Your task to perform on an android device: Search for vegetarian restaurants on Maps Image 0: 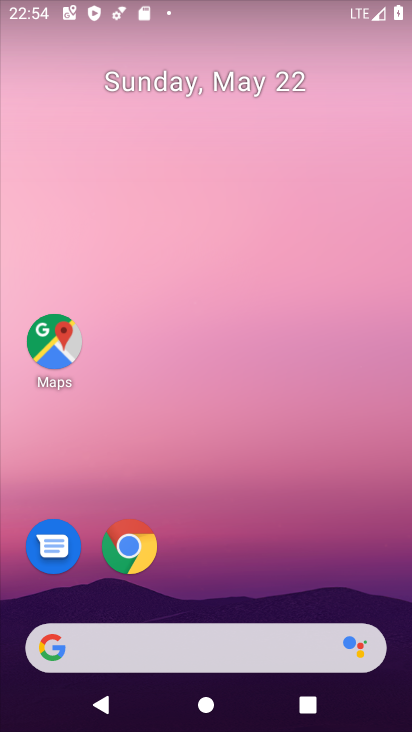
Step 0: drag from (217, 566) to (278, 122)
Your task to perform on an android device: Search for vegetarian restaurants on Maps Image 1: 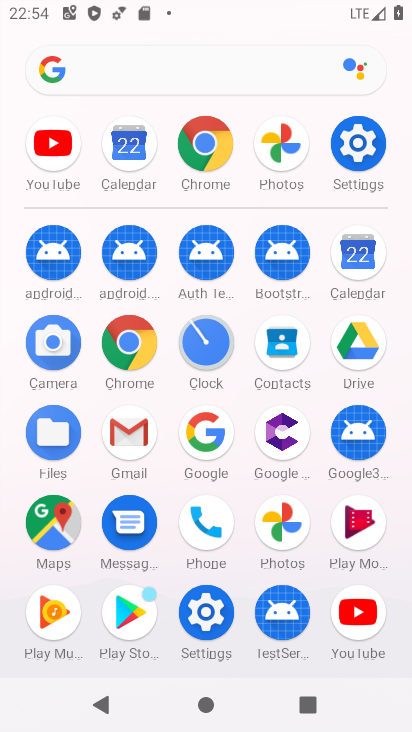
Step 1: click (55, 539)
Your task to perform on an android device: Search for vegetarian restaurants on Maps Image 2: 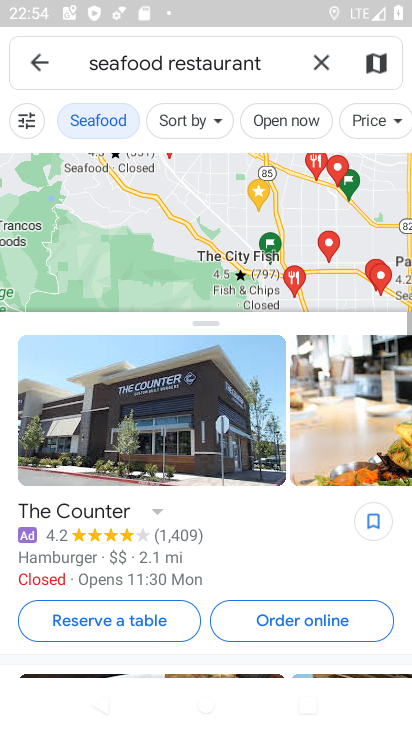
Step 2: click (320, 61)
Your task to perform on an android device: Search for vegetarian restaurants on Maps Image 3: 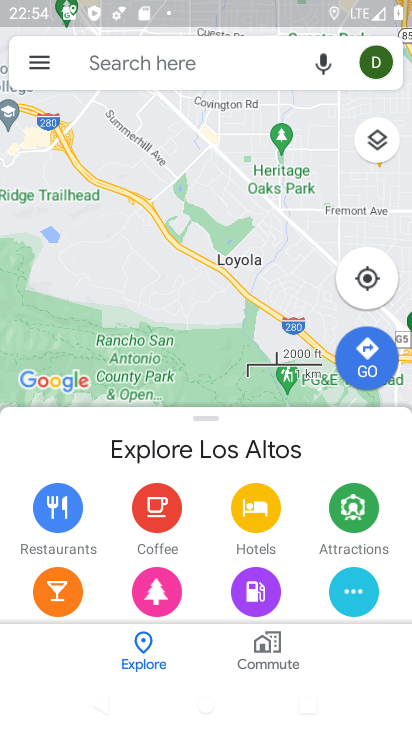
Step 3: click (111, 61)
Your task to perform on an android device: Search for vegetarian restaurants on Maps Image 4: 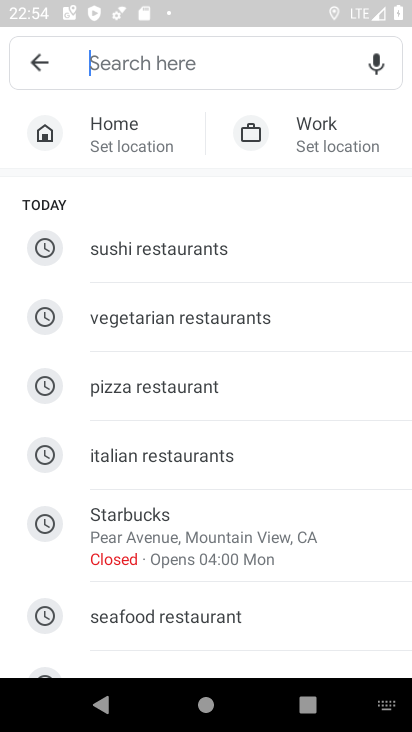
Step 4: click (119, 310)
Your task to perform on an android device: Search for vegetarian restaurants on Maps Image 5: 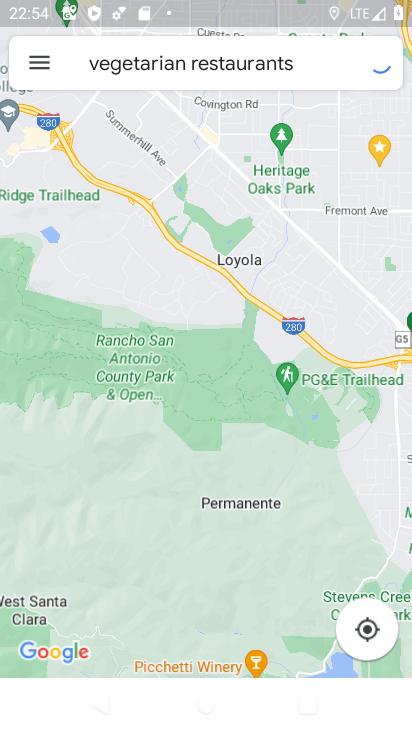
Step 5: drag from (183, 577) to (237, 197)
Your task to perform on an android device: Search for vegetarian restaurants on Maps Image 6: 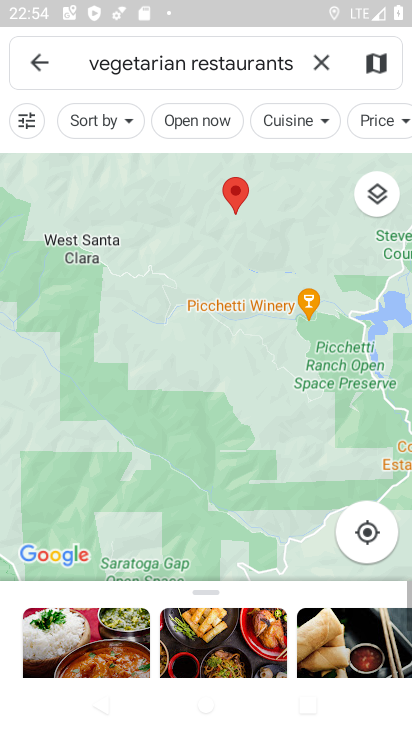
Step 6: drag from (206, 417) to (173, 134)
Your task to perform on an android device: Search for vegetarian restaurants on Maps Image 7: 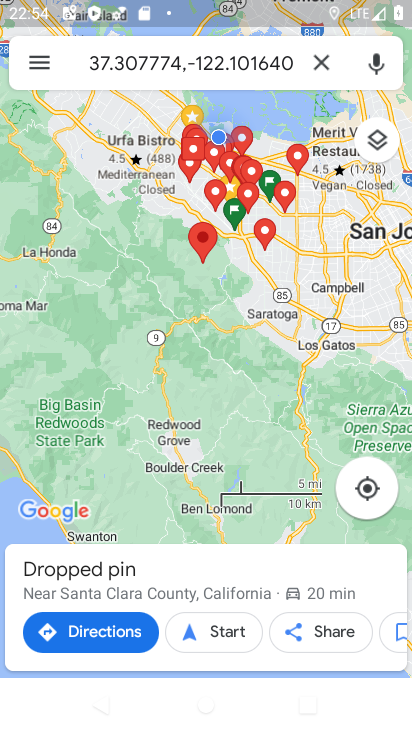
Step 7: click (318, 66)
Your task to perform on an android device: Search for vegetarian restaurants on Maps Image 8: 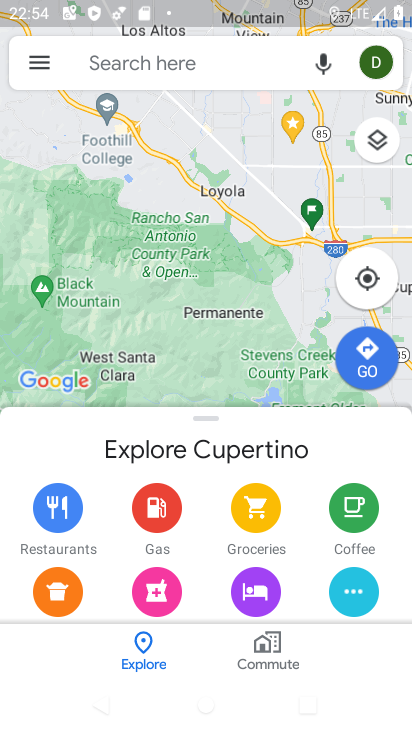
Step 8: click (115, 61)
Your task to perform on an android device: Search for vegetarian restaurants on Maps Image 9: 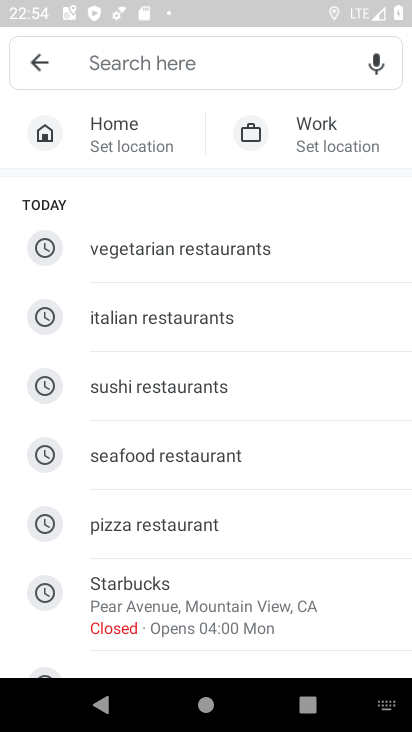
Step 9: click (144, 252)
Your task to perform on an android device: Search for vegetarian restaurants on Maps Image 10: 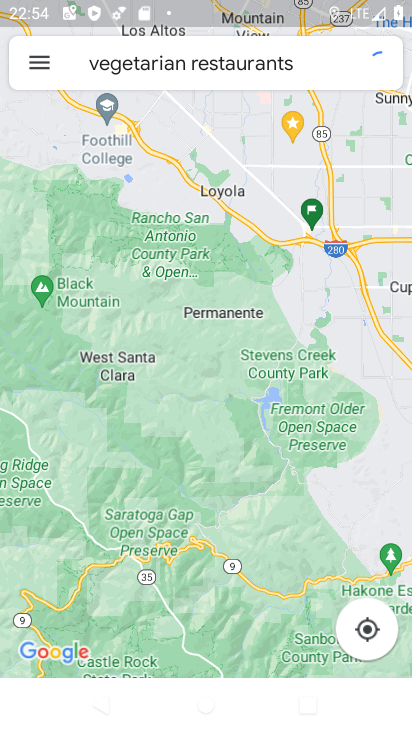
Step 10: task complete